Your task to perform on an android device: toggle improve location accuracy Image 0: 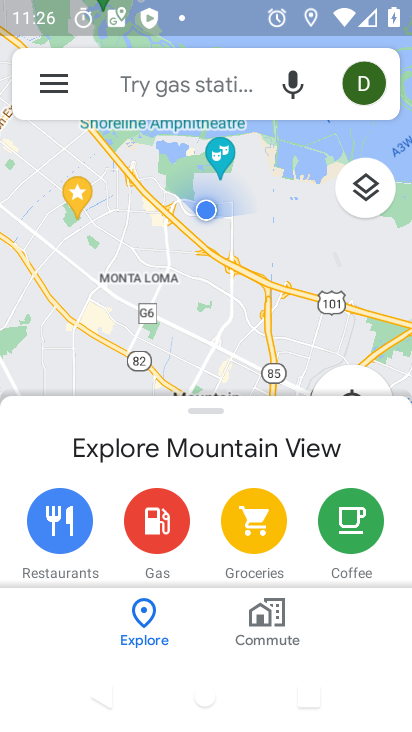
Step 0: press home button
Your task to perform on an android device: toggle improve location accuracy Image 1: 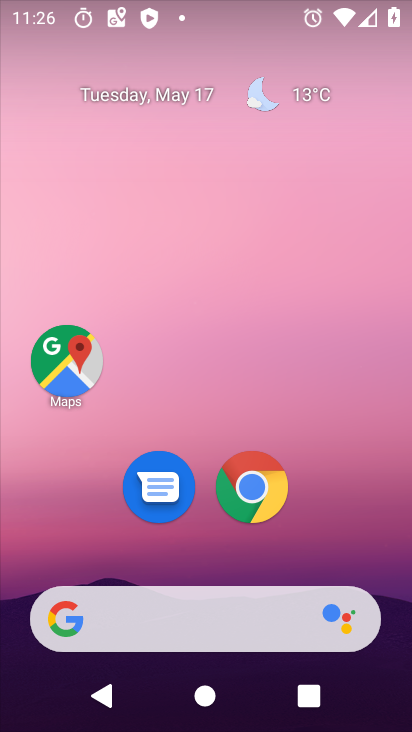
Step 1: drag from (226, 720) to (254, 0)
Your task to perform on an android device: toggle improve location accuracy Image 2: 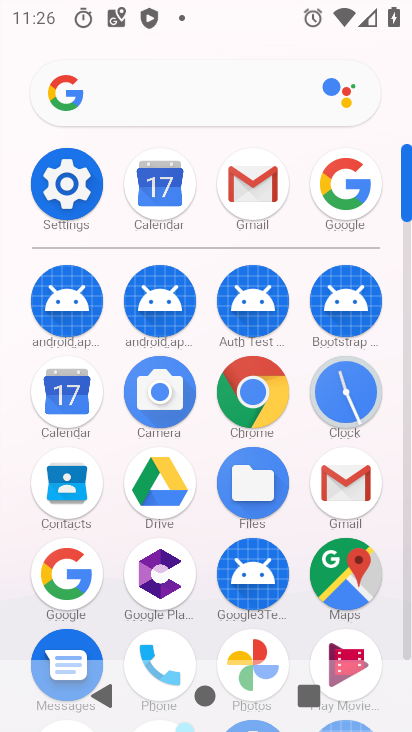
Step 2: click (64, 179)
Your task to perform on an android device: toggle improve location accuracy Image 3: 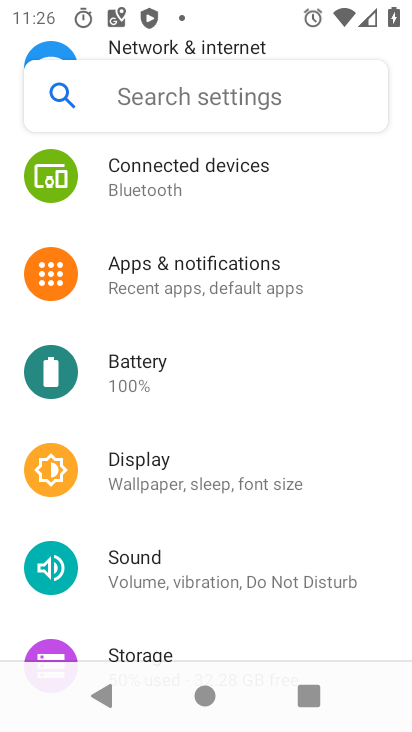
Step 3: drag from (181, 607) to (184, 251)
Your task to perform on an android device: toggle improve location accuracy Image 4: 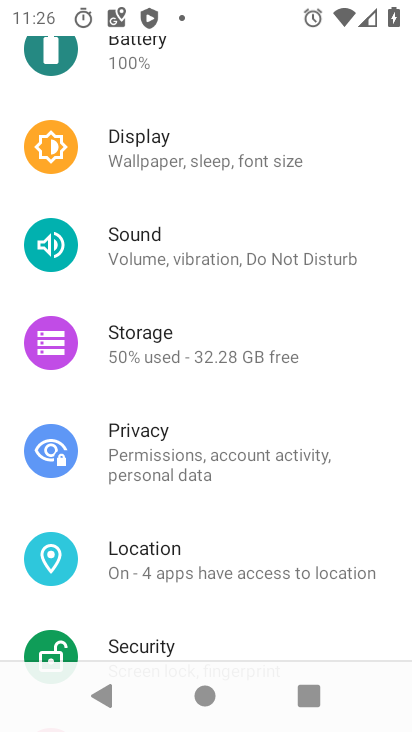
Step 4: click (154, 554)
Your task to perform on an android device: toggle improve location accuracy Image 5: 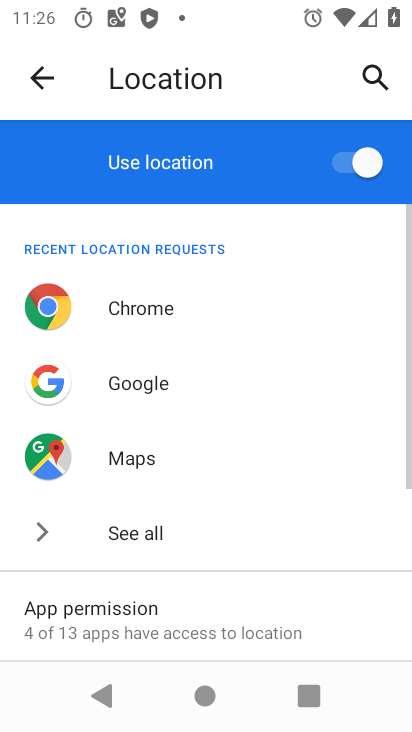
Step 5: drag from (177, 633) to (182, 299)
Your task to perform on an android device: toggle improve location accuracy Image 6: 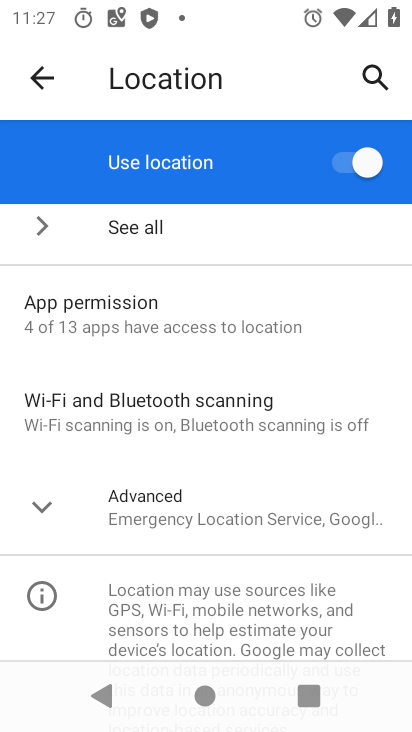
Step 6: click (140, 505)
Your task to perform on an android device: toggle improve location accuracy Image 7: 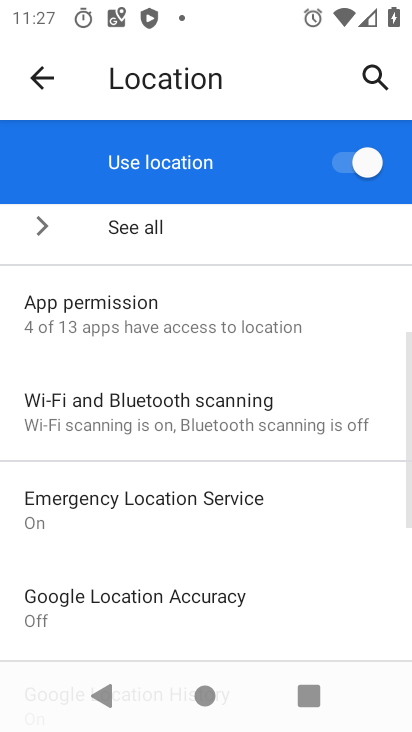
Step 7: drag from (207, 636) to (204, 459)
Your task to perform on an android device: toggle improve location accuracy Image 8: 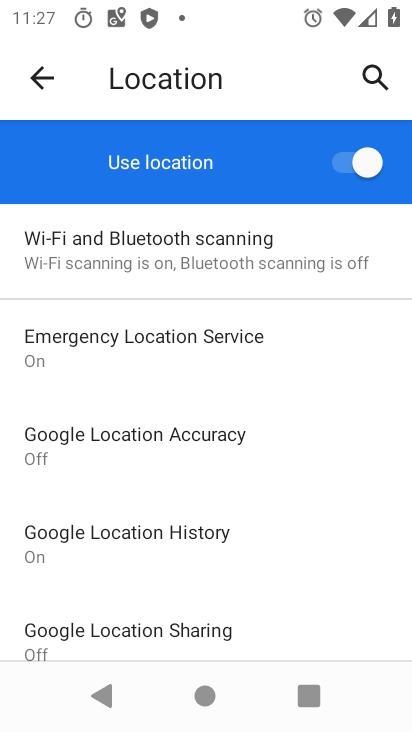
Step 8: click (90, 429)
Your task to perform on an android device: toggle improve location accuracy Image 9: 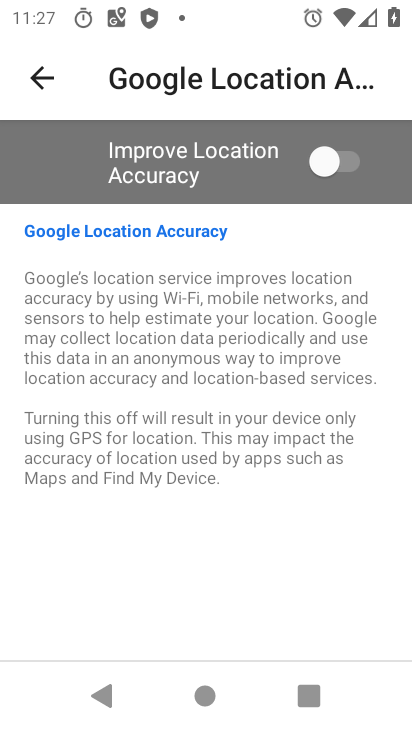
Step 9: click (343, 162)
Your task to perform on an android device: toggle improve location accuracy Image 10: 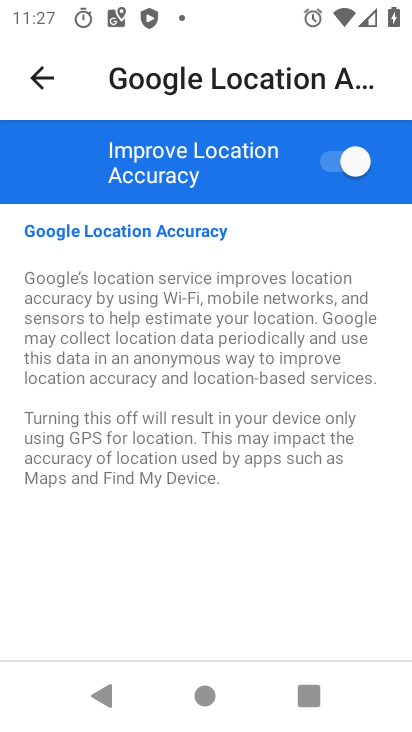
Step 10: task complete